Your task to perform on an android device: turn on bluetooth scan Image 0: 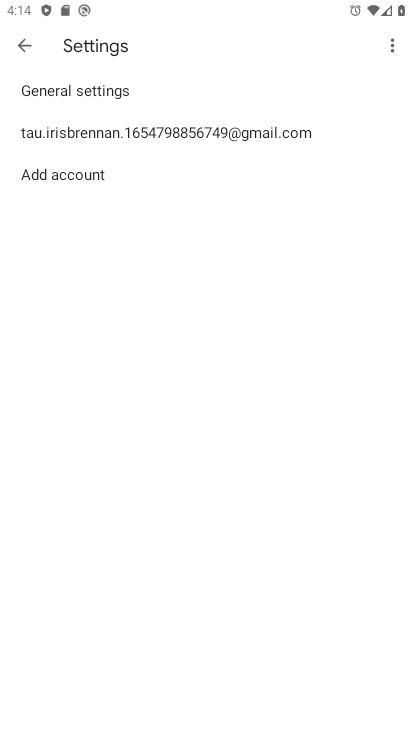
Step 0: press home button
Your task to perform on an android device: turn on bluetooth scan Image 1: 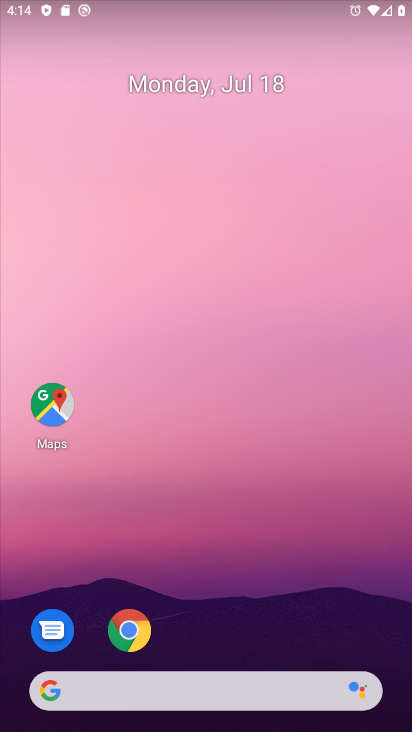
Step 1: drag from (222, 528) to (178, 14)
Your task to perform on an android device: turn on bluetooth scan Image 2: 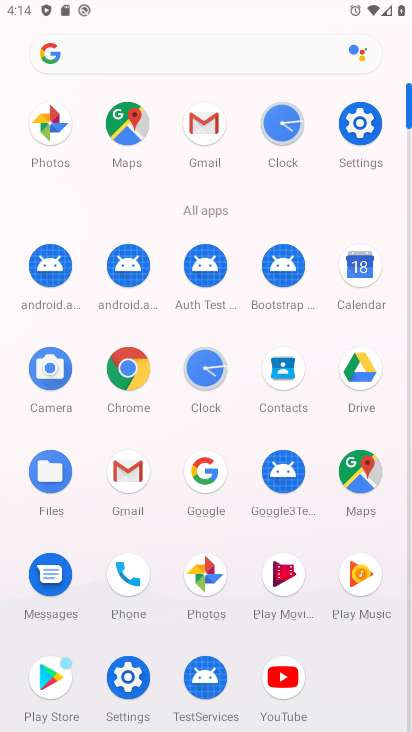
Step 2: click (358, 124)
Your task to perform on an android device: turn on bluetooth scan Image 3: 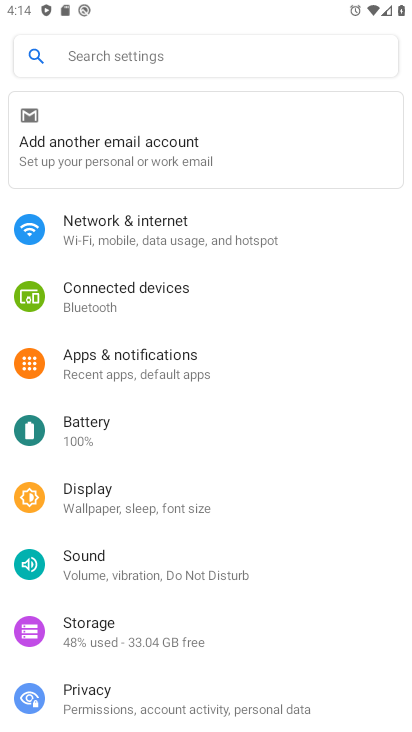
Step 3: drag from (287, 588) to (251, 236)
Your task to perform on an android device: turn on bluetooth scan Image 4: 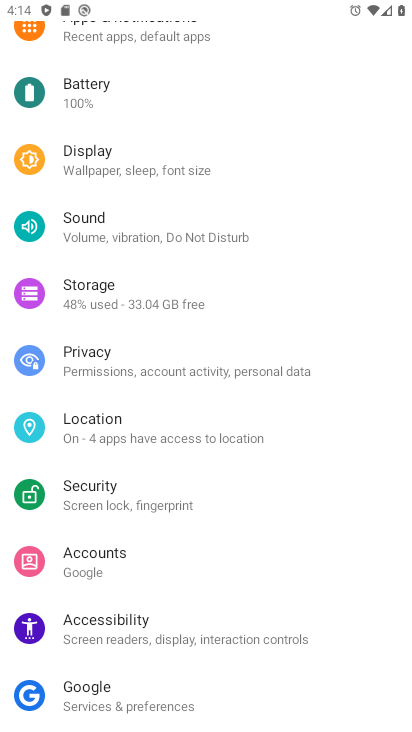
Step 4: click (73, 425)
Your task to perform on an android device: turn on bluetooth scan Image 5: 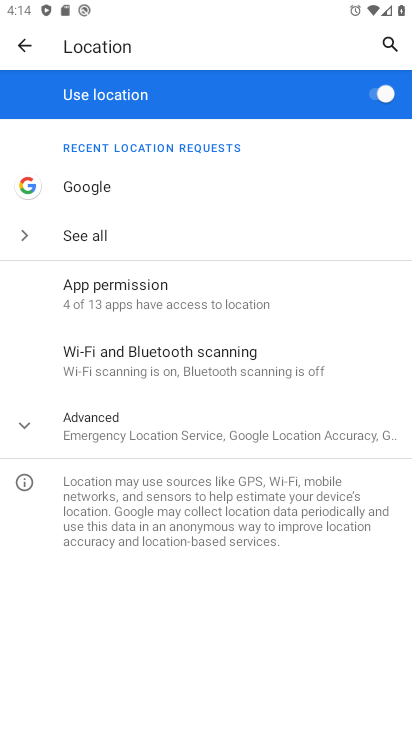
Step 5: click (151, 345)
Your task to perform on an android device: turn on bluetooth scan Image 6: 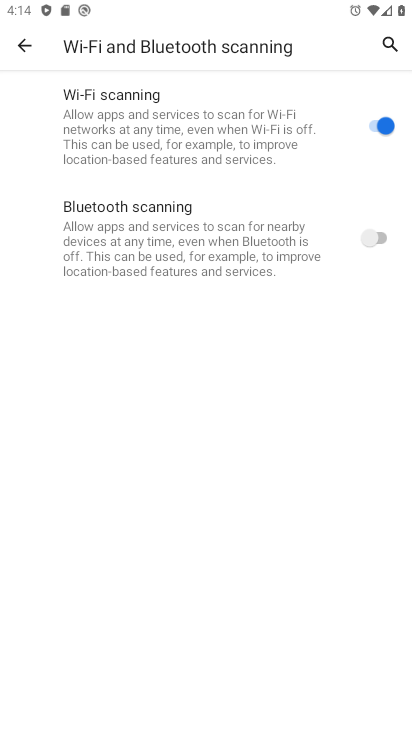
Step 6: click (381, 238)
Your task to perform on an android device: turn on bluetooth scan Image 7: 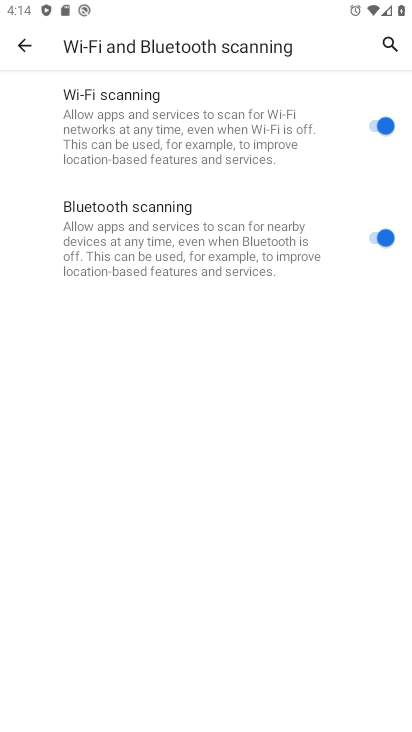
Step 7: task complete